Your task to perform on an android device: check data usage Image 0: 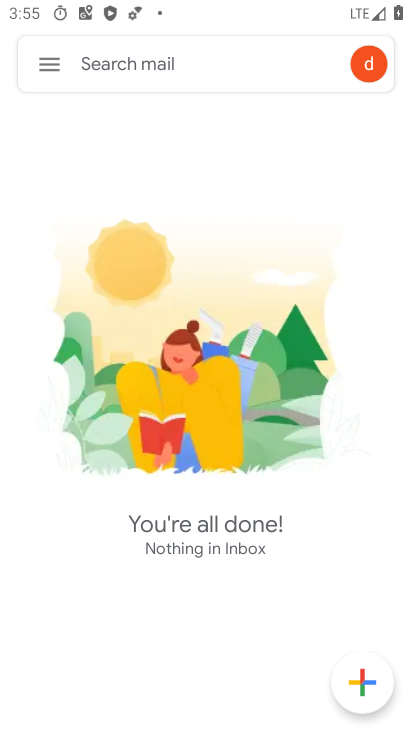
Step 0: press home button
Your task to perform on an android device: check data usage Image 1: 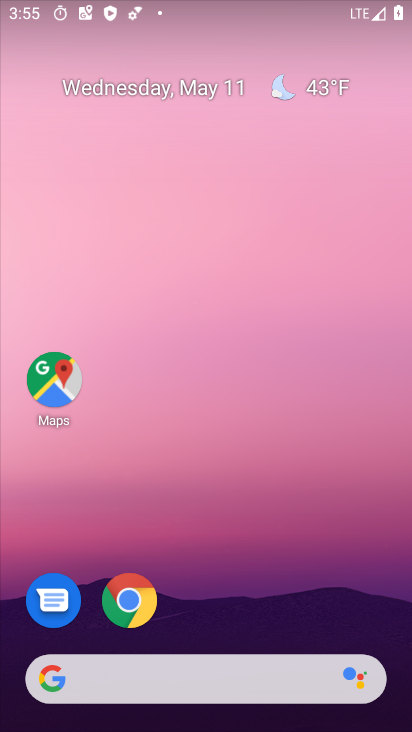
Step 1: drag from (274, 447) to (238, 4)
Your task to perform on an android device: check data usage Image 2: 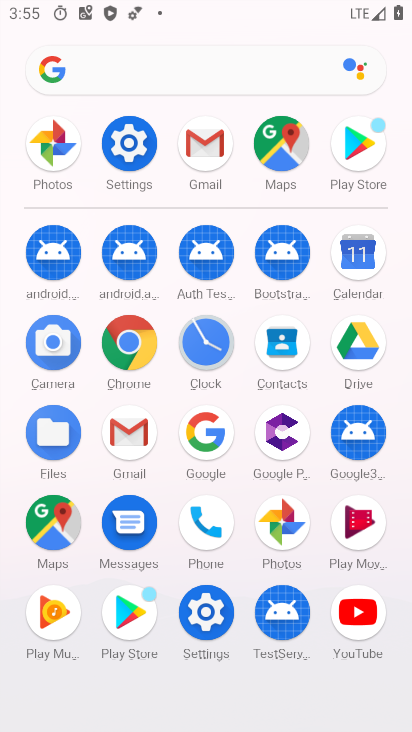
Step 2: click (136, 187)
Your task to perform on an android device: check data usage Image 3: 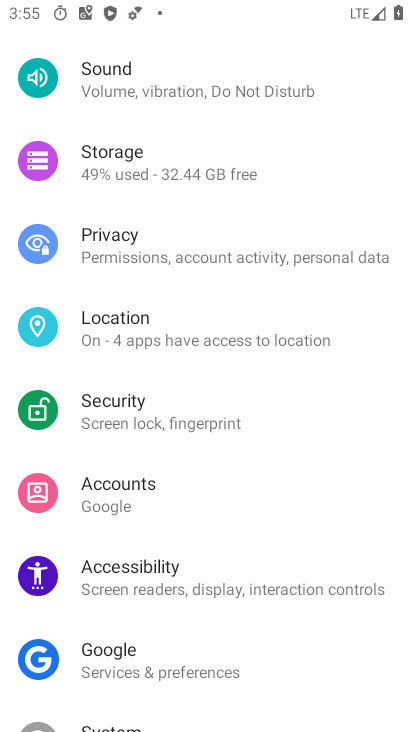
Step 3: drag from (370, 132) to (390, 498)
Your task to perform on an android device: check data usage Image 4: 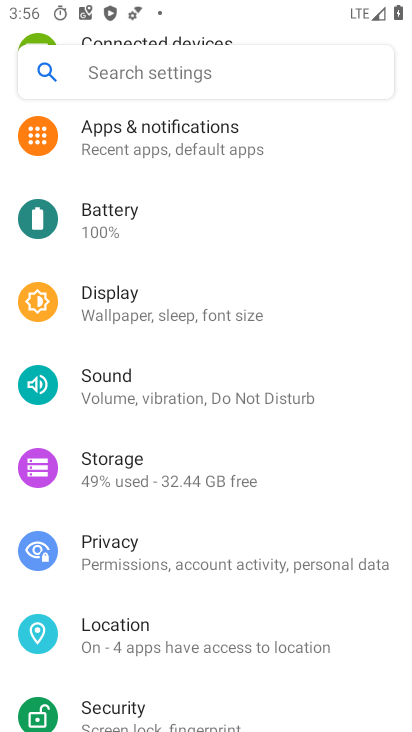
Step 4: drag from (350, 239) to (351, 591)
Your task to perform on an android device: check data usage Image 5: 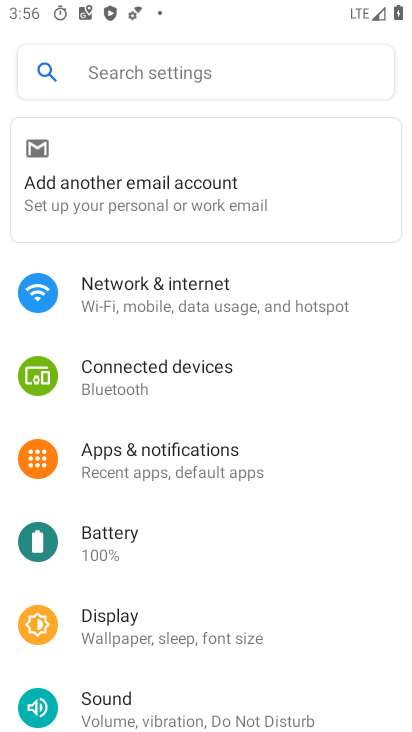
Step 5: click (152, 297)
Your task to perform on an android device: check data usage Image 6: 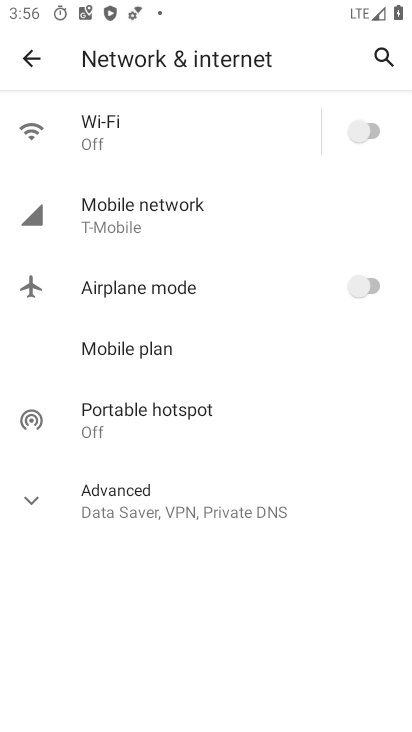
Step 6: click (102, 215)
Your task to perform on an android device: check data usage Image 7: 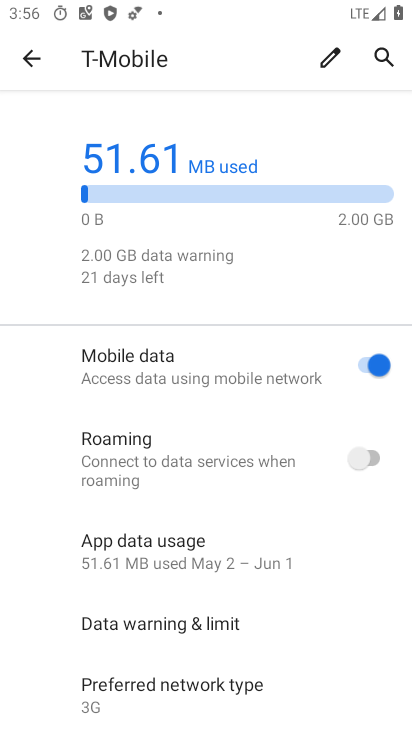
Step 7: click (110, 556)
Your task to perform on an android device: check data usage Image 8: 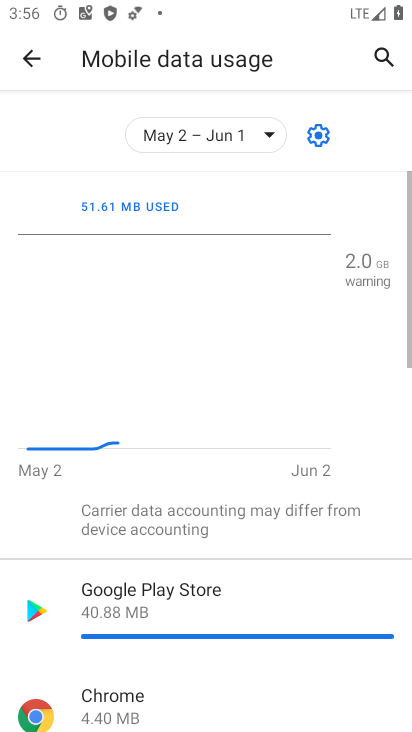
Step 8: task complete